Your task to perform on an android device: turn on improve location accuracy Image 0: 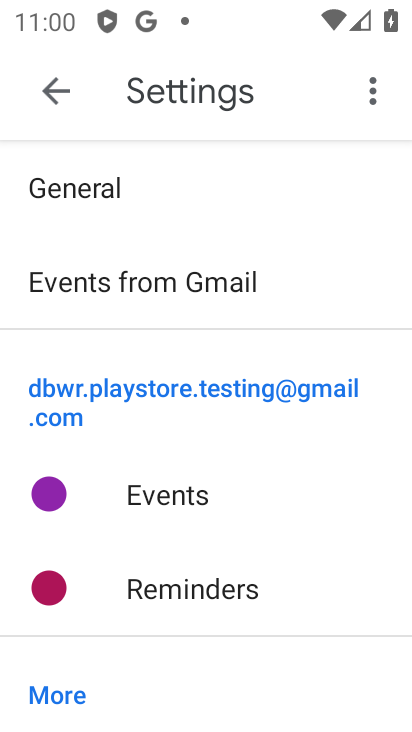
Step 0: press home button
Your task to perform on an android device: turn on improve location accuracy Image 1: 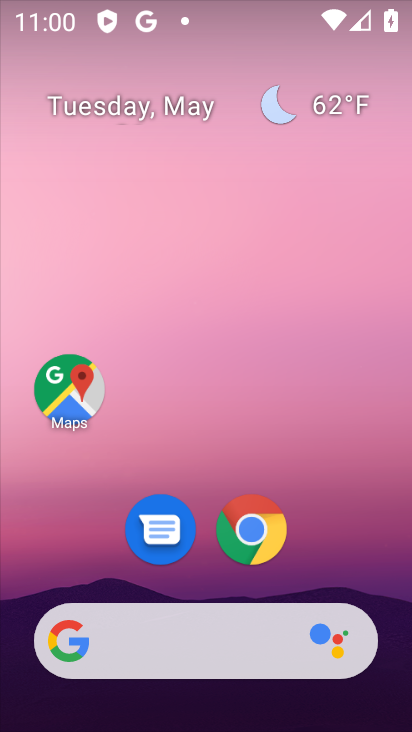
Step 1: drag from (143, 700) to (185, 120)
Your task to perform on an android device: turn on improve location accuracy Image 2: 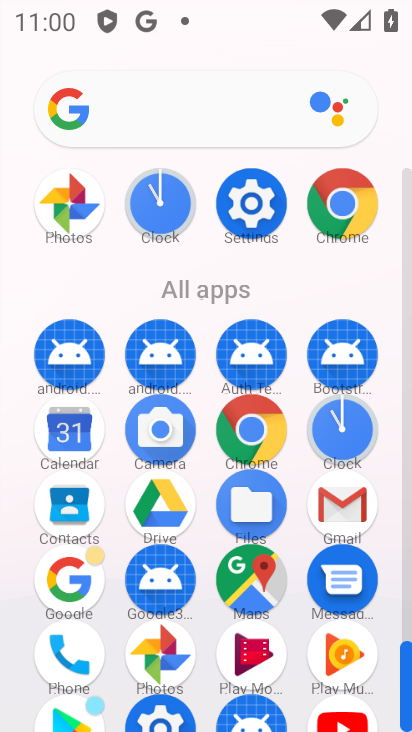
Step 2: click (239, 206)
Your task to perform on an android device: turn on improve location accuracy Image 3: 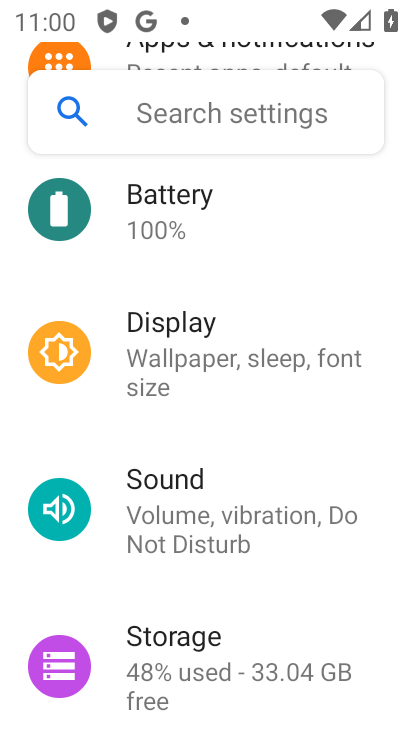
Step 3: drag from (241, 305) to (284, 235)
Your task to perform on an android device: turn on improve location accuracy Image 4: 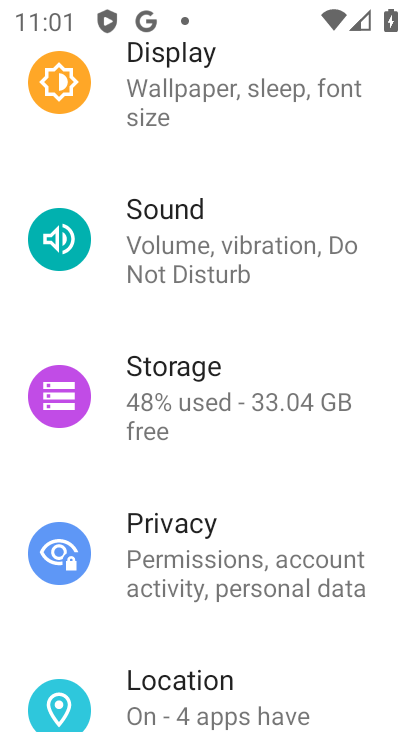
Step 4: click (192, 698)
Your task to perform on an android device: turn on improve location accuracy Image 5: 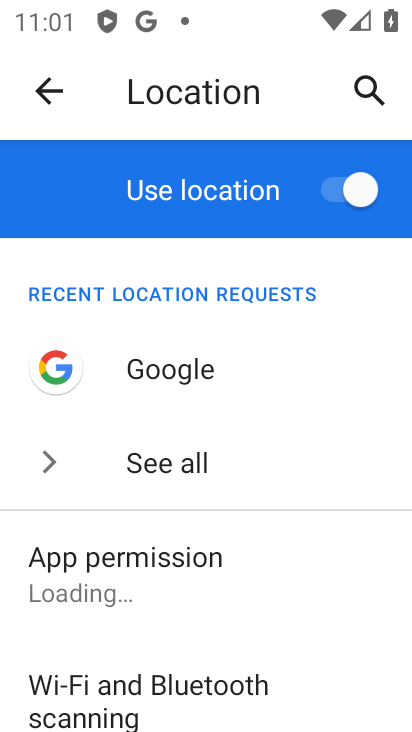
Step 5: drag from (236, 610) to (240, 300)
Your task to perform on an android device: turn on improve location accuracy Image 6: 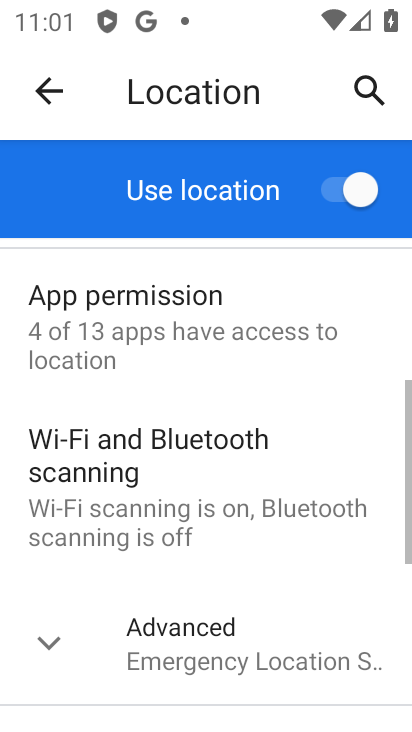
Step 6: drag from (184, 680) to (219, 404)
Your task to perform on an android device: turn on improve location accuracy Image 7: 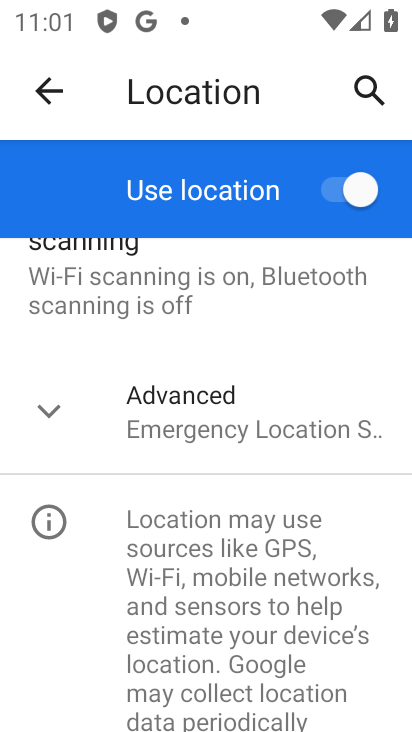
Step 7: click (207, 436)
Your task to perform on an android device: turn on improve location accuracy Image 8: 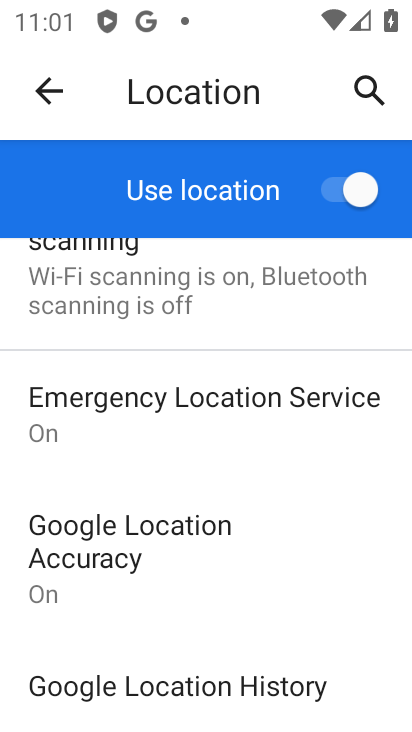
Step 8: drag from (247, 601) to (288, 352)
Your task to perform on an android device: turn on improve location accuracy Image 9: 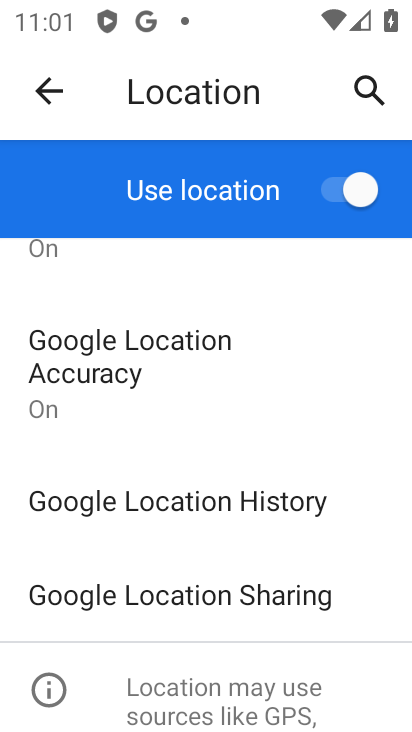
Step 9: click (171, 363)
Your task to perform on an android device: turn on improve location accuracy Image 10: 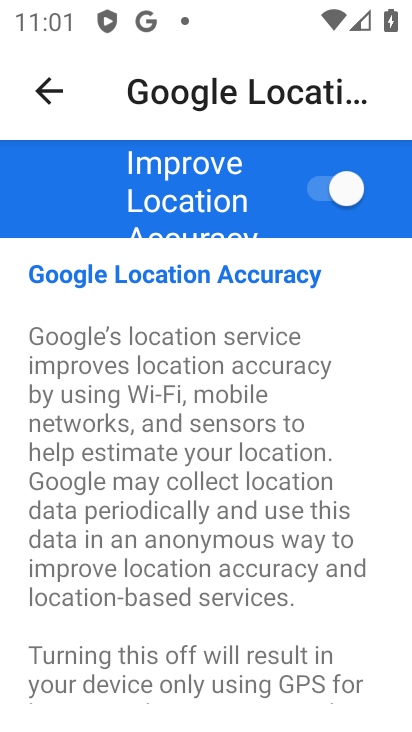
Step 10: task complete